Your task to perform on an android device: empty trash in google photos Image 0: 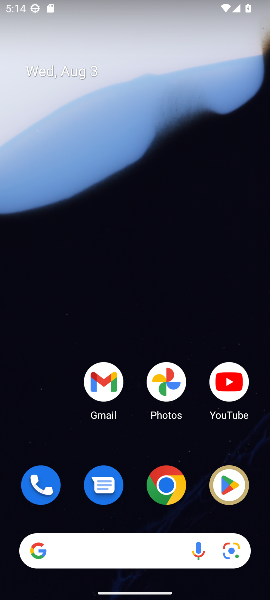
Step 0: drag from (154, 467) to (215, 3)
Your task to perform on an android device: empty trash in google photos Image 1: 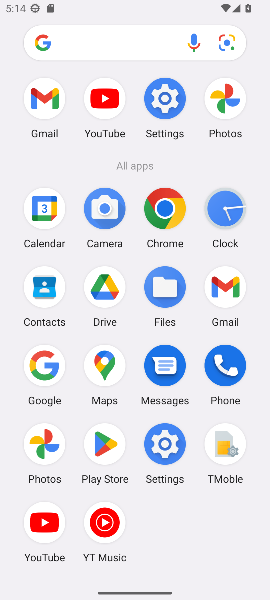
Step 1: click (220, 98)
Your task to perform on an android device: empty trash in google photos Image 2: 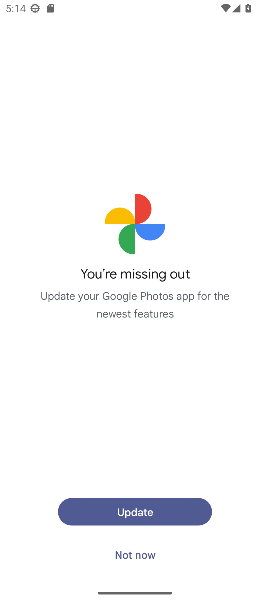
Step 2: click (143, 558)
Your task to perform on an android device: empty trash in google photos Image 3: 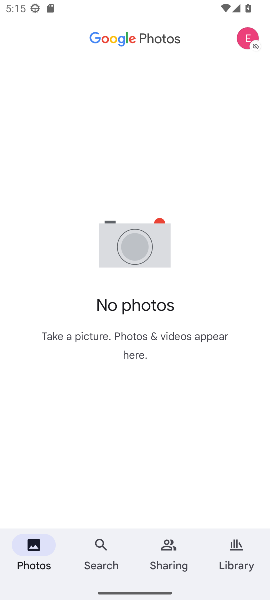
Step 3: click (244, 549)
Your task to perform on an android device: empty trash in google photos Image 4: 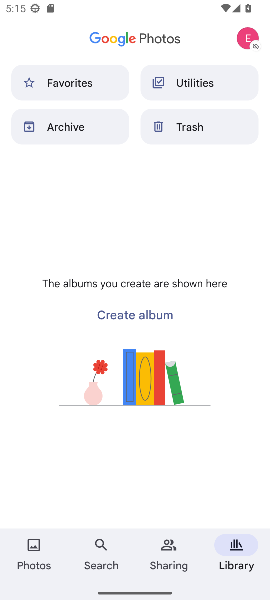
Step 4: click (209, 124)
Your task to perform on an android device: empty trash in google photos Image 5: 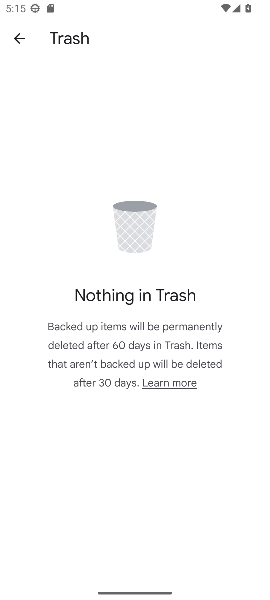
Step 5: task complete